Your task to perform on an android device: turn off smart reply in the gmail app Image 0: 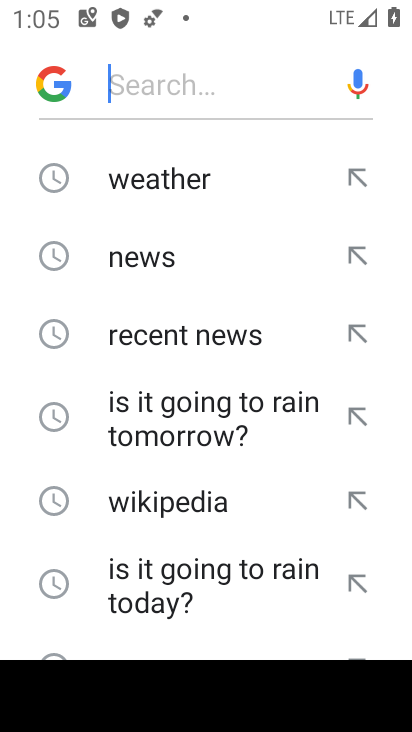
Step 0: press home button
Your task to perform on an android device: turn off smart reply in the gmail app Image 1: 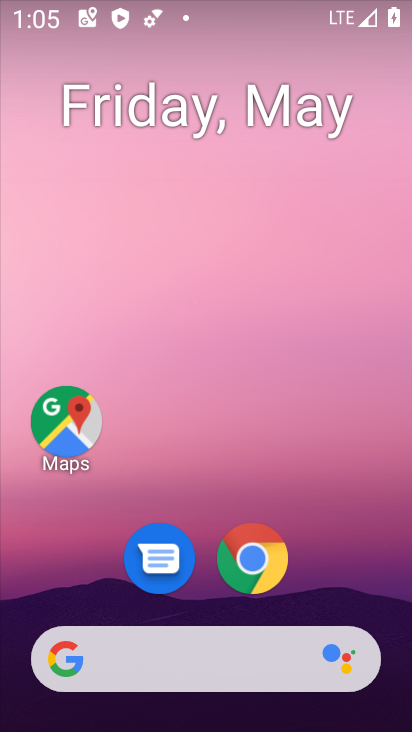
Step 1: drag from (348, 615) to (203, 87)
Your task to perform on an android device: turn off smart reply in the gmail app Image 2: 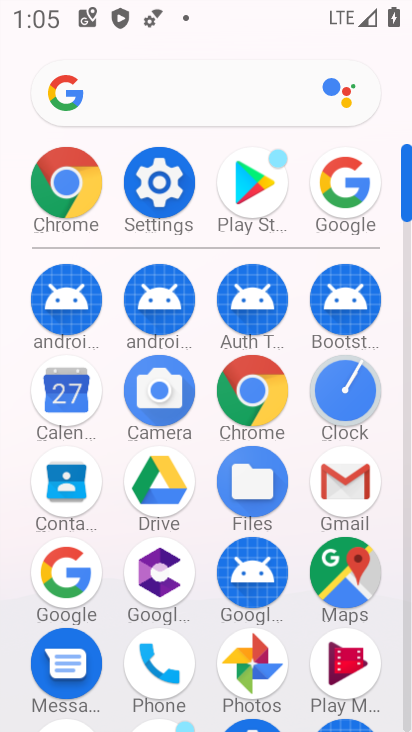
Step 2: click (344, 477)
Your task to perform on an android device: turn off smart reply in the gmail app Image 3: 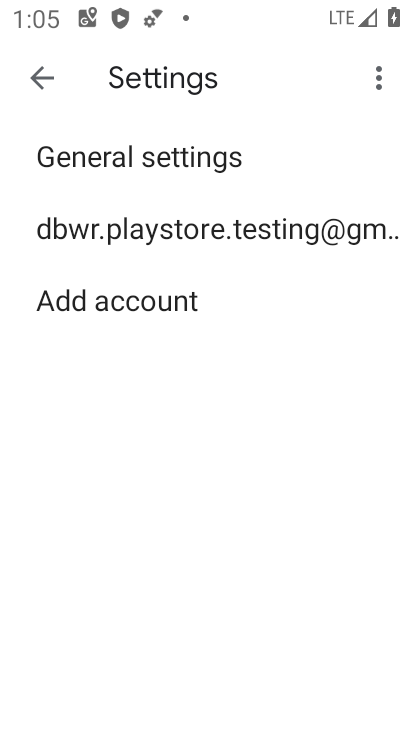
Step 3: click (263, 242)
Your task to perform on an android device: turn off smart reply in the gmail app Image 4: 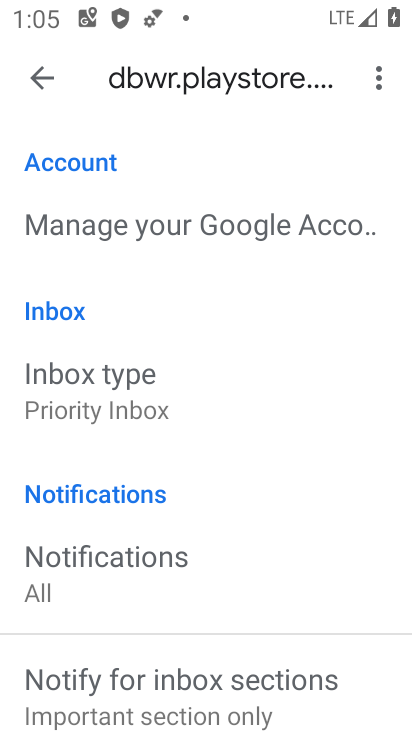
Step 4: drag from (189, 641) to (159, 205)
Your task to perform on an android device: turn off smart reply in the gmail app Image 5: 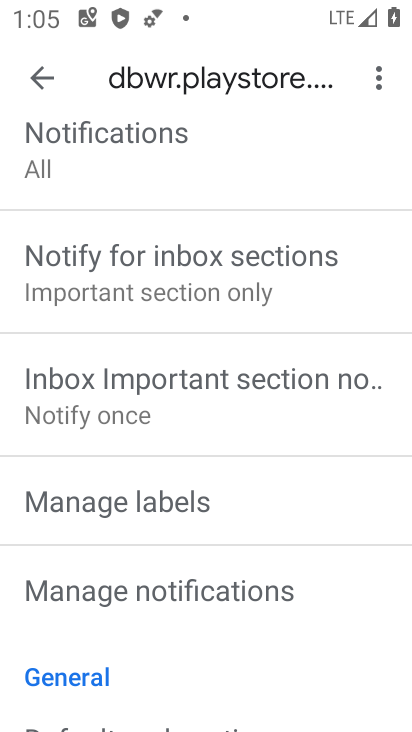
Step 5: drag from (179, 654) to (235, 58)
Your task to perform on an android device: turn off smart reply in the gmail app Image 6: 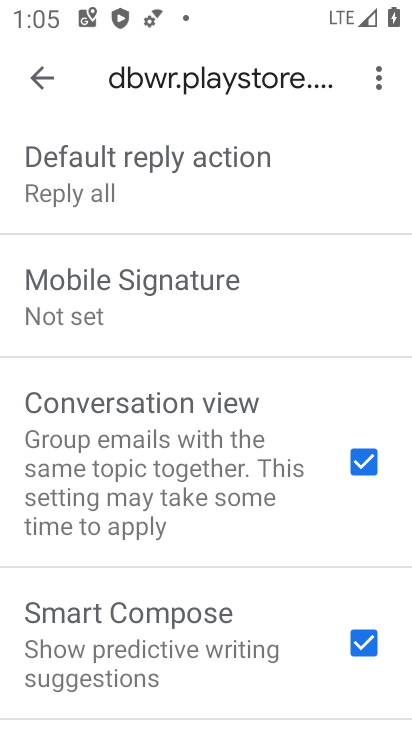
Step 6: drag from (195, 708) to (212, 232)
Your task to perform on an android device: turn off smart reply in the gmail app Image 7: 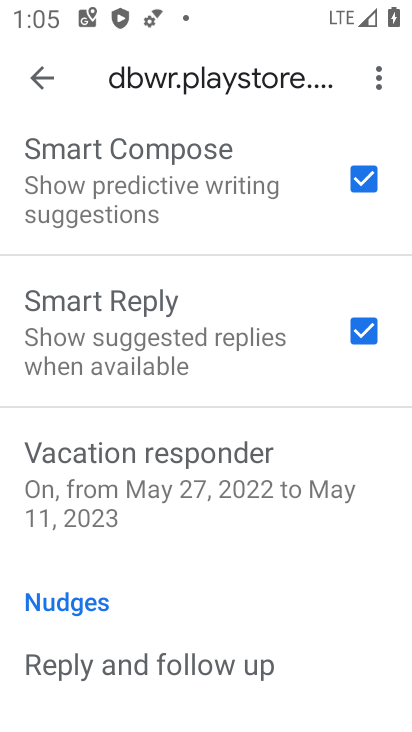
Step 7: click (374, 320)
Your task to perform on an android device: turn off smart reply in the gmail app Image 8: 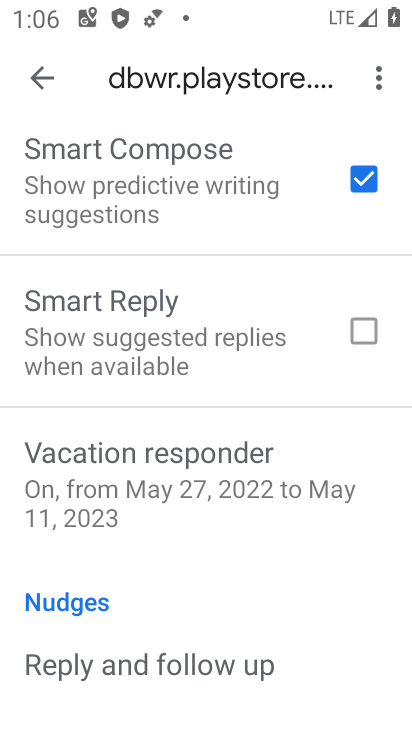
Step 8: task complete